Your task to perform on an android device: Open Yahoo.com Image 0: 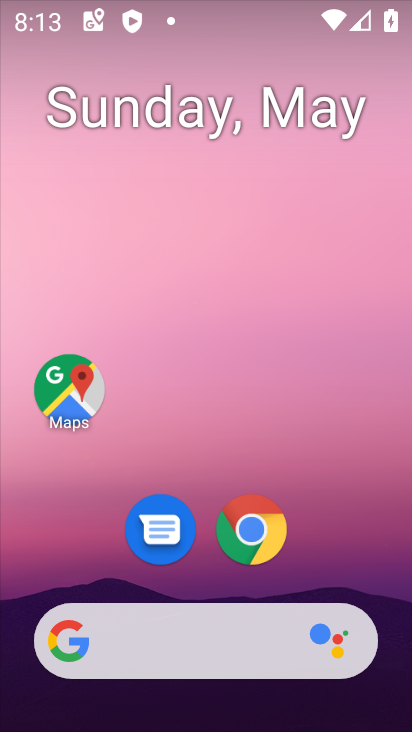
Step 0: click (235, 525)
Your task to perform on an android device: Open Yahoo.com Image 1: 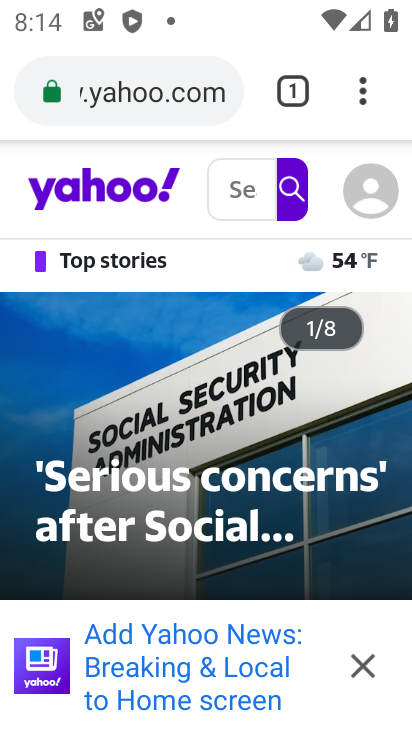
Step 1: task complete